Your task to perform on an android device: check battery use Image 0: 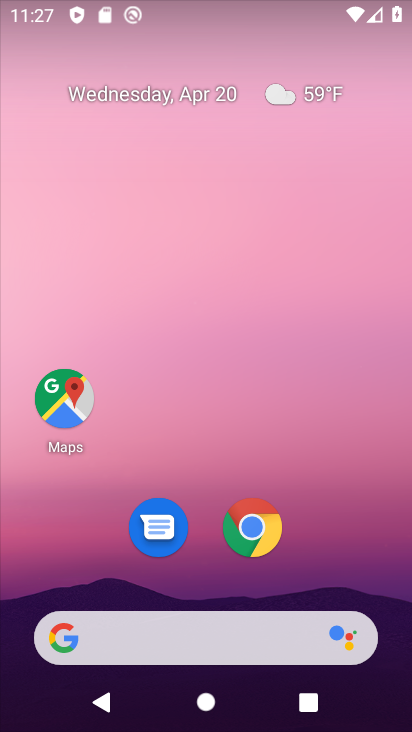
Step 0: drag from (377, 543) to (372, 187)
Your task to perform on an android device: check battery use Image 1: 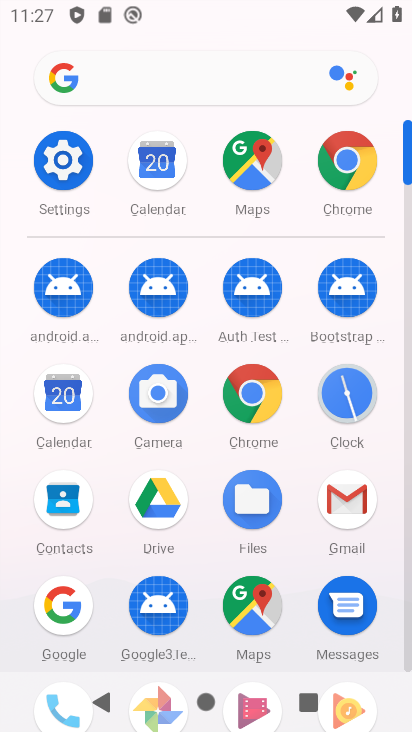
Step 1: click (35, 172)
Your task to perform on an android device: check battery use Image 2: 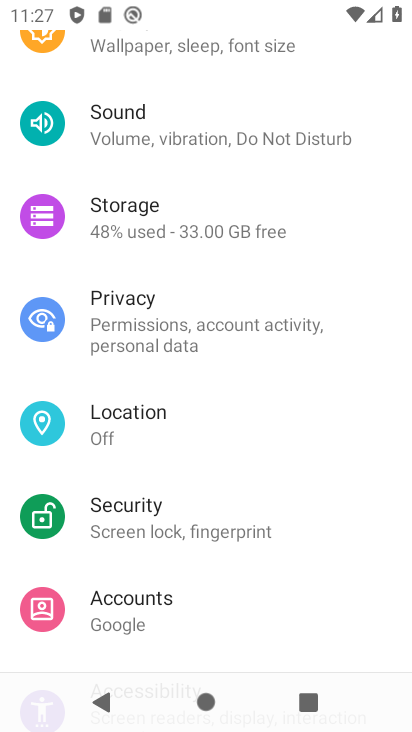
Step 2: drag from (227, 299) to (235, 530)
Your task to perform on an android device: check battery use Image 3: 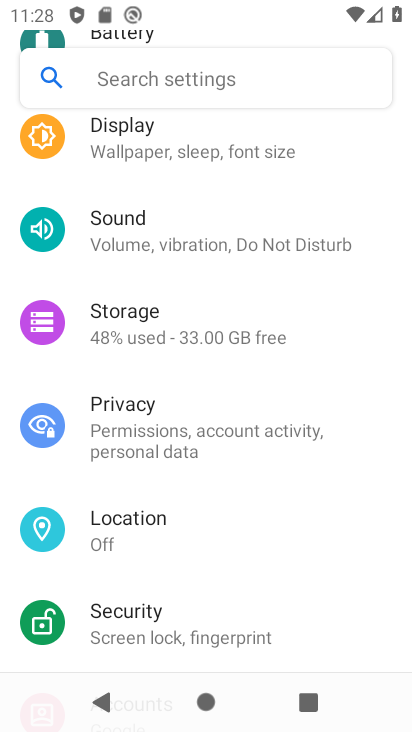
Step 3: drag from (214, 182) to (215, 399)
Your task to perform on an android device: check battery use Image 4: 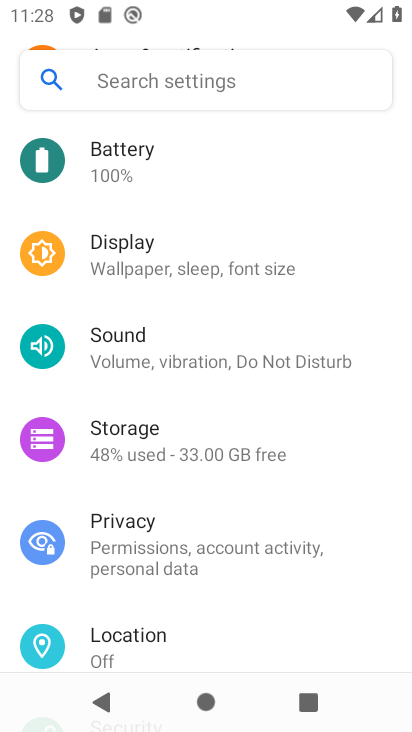
Step 4: click (138, 163)
Your task to perform on an android device: check battery use Image 5: 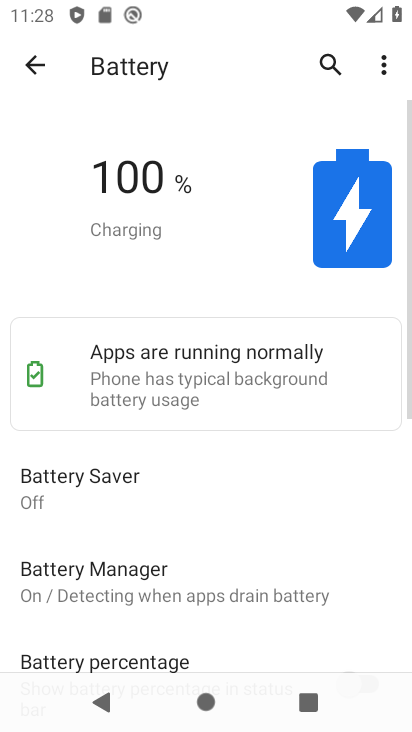
Step 5: click (376, 66)
Your task to perform on an android device: check battery use Image 6: 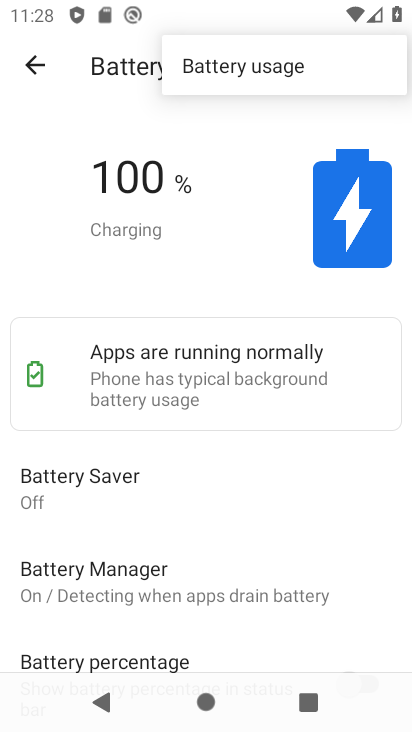
Step 6: click (264, 68)
Your task to perform on an android device: check battery use Image 7: 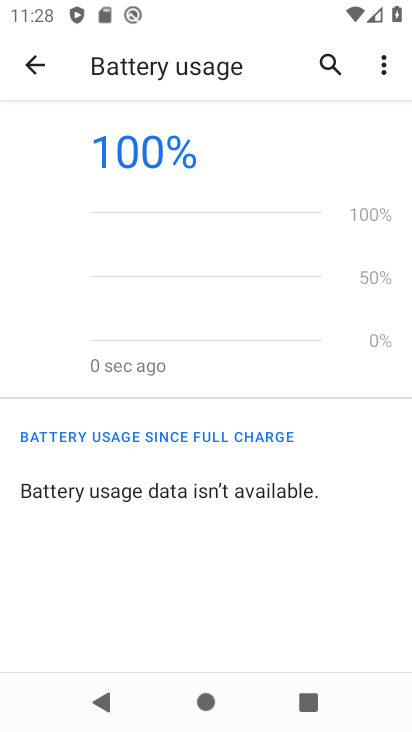
Step 7: task complete